Your task to perform on an android device: change the clock display to digital Image 0: 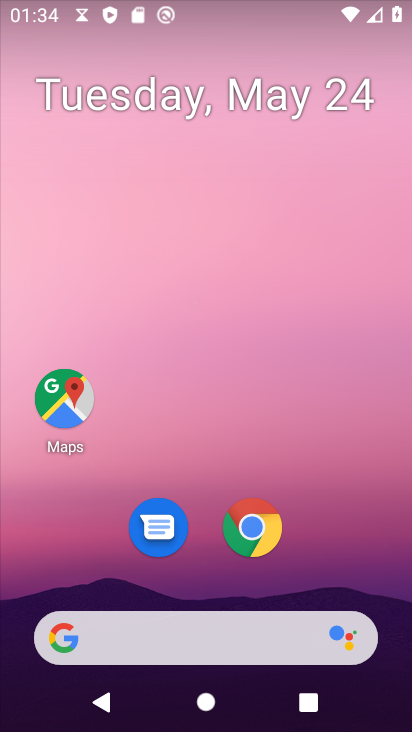
Step 0: press home button
Your task to perform on an android device: change the clock display to digital Image 1: 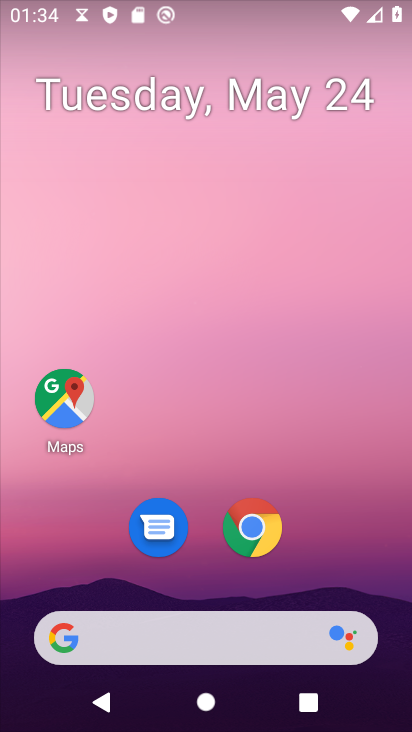
Step 1: drag from (188, 626) to (316, 61)
Your task to perform on an android device: change the clock display to digital Image 2: 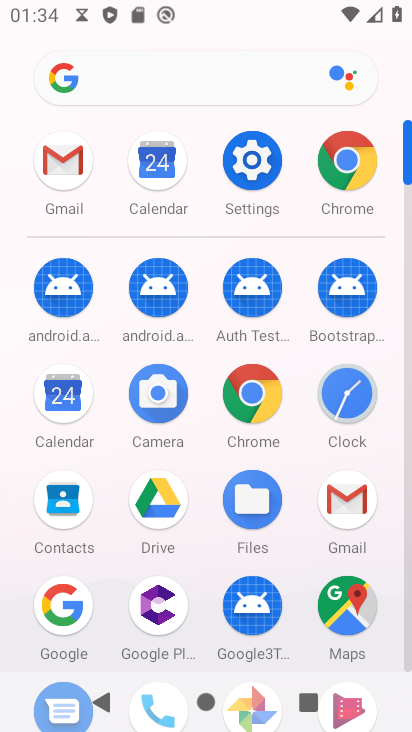
Step 2: click (340, 401)
Your task to perform on an android device: change the clock display to digital Image 3: 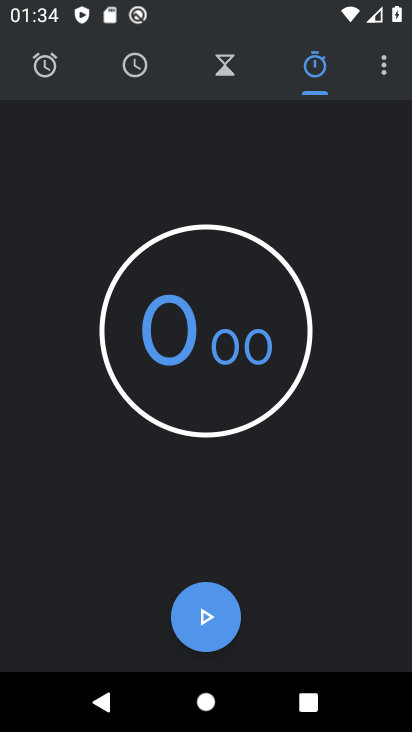
Step 3: click (386, 65)
Your task to perform on an android device: change the clock display to digital Image 4: 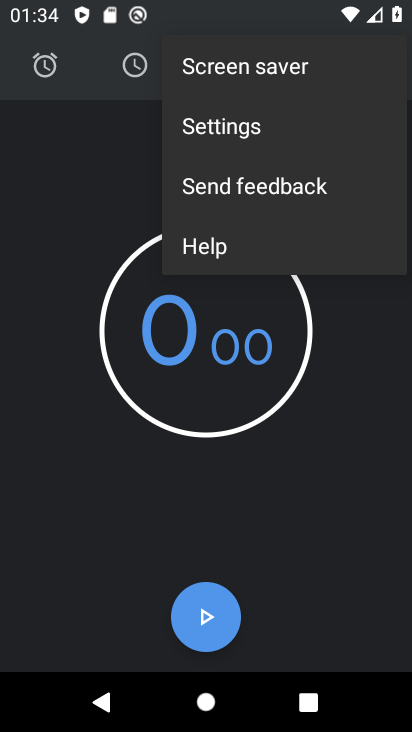
Step 4: click (236, 118)
Your task to perform on an android device: change the clock display to digital Image 5: 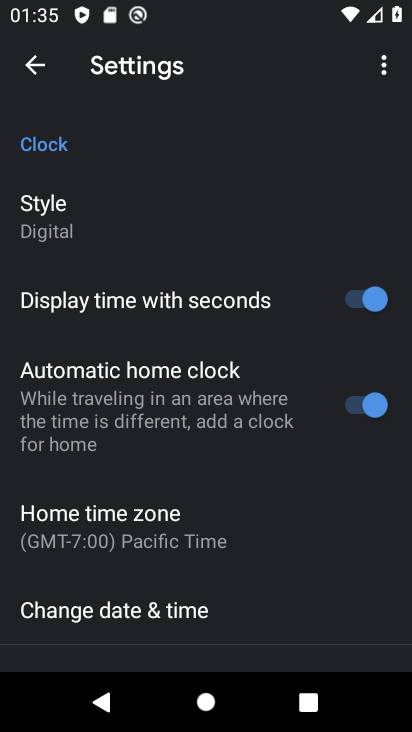
Step 5: task complete